Your task to perform on an android device: toggle improve location accuracy Image 0: 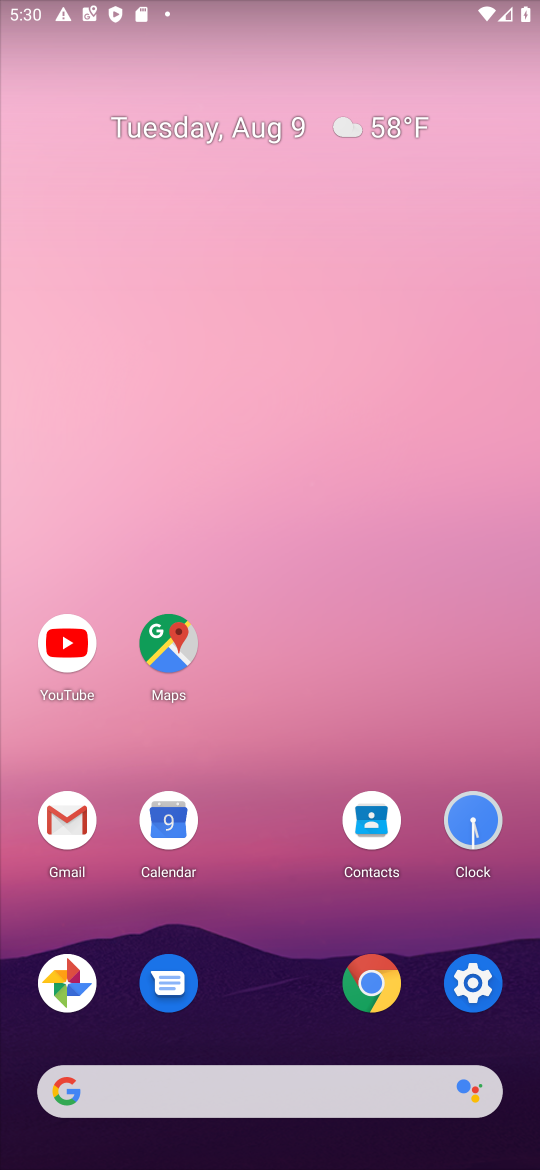
Step 0: click (464, 986)
Your task to perform on an android device: toggle improve location accuracy Image 1: 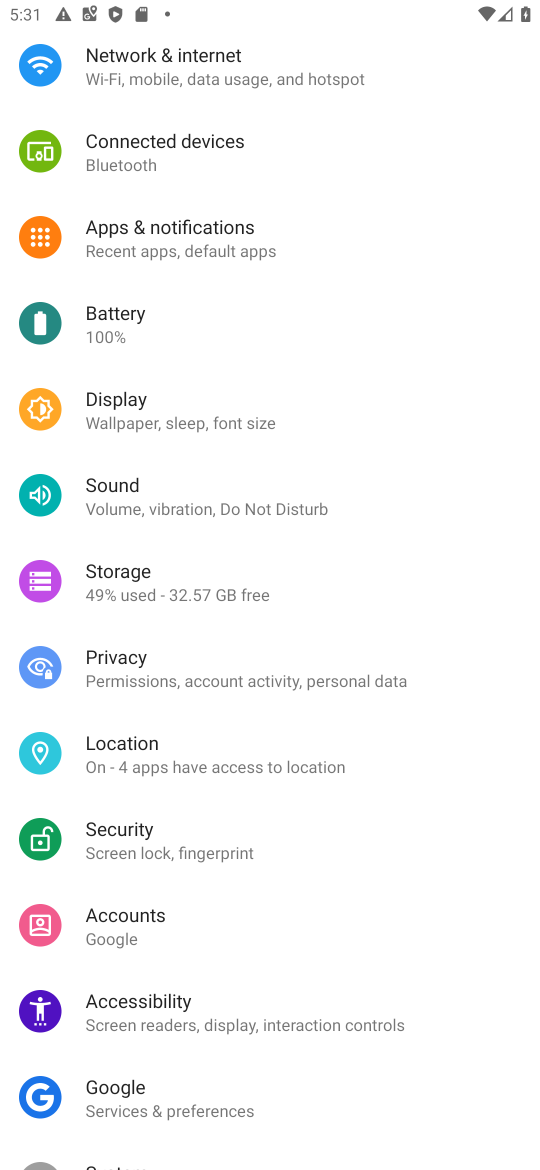
Step 1: click (123, 732)
Your task to perform on an android device: toggle improve location accuracy Image 2: 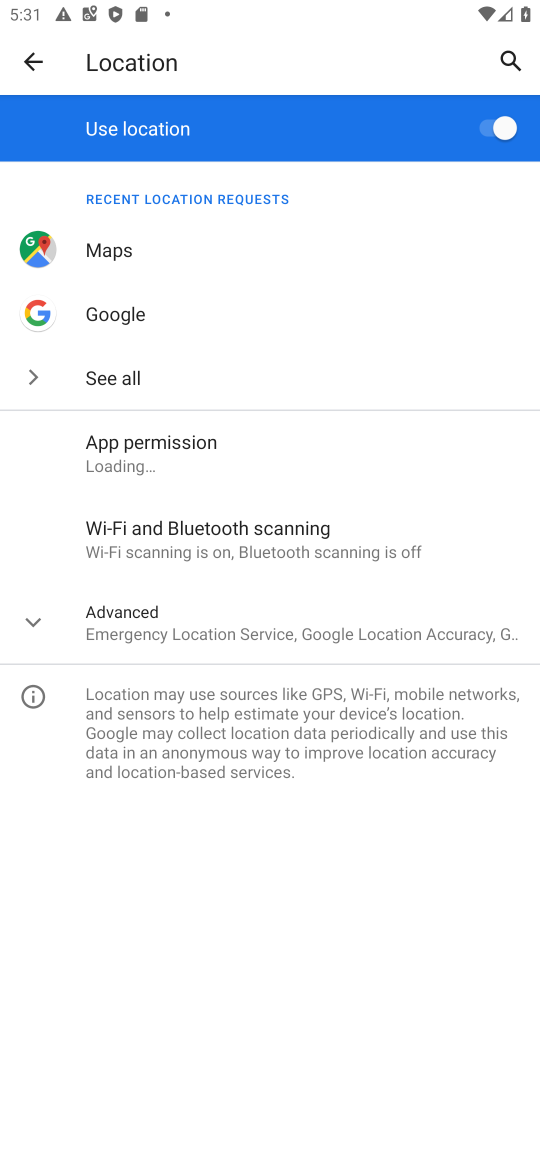
Step 2: click (53, 604)
Your task to perform on an android device: toggle improve location accuracy Image 3: 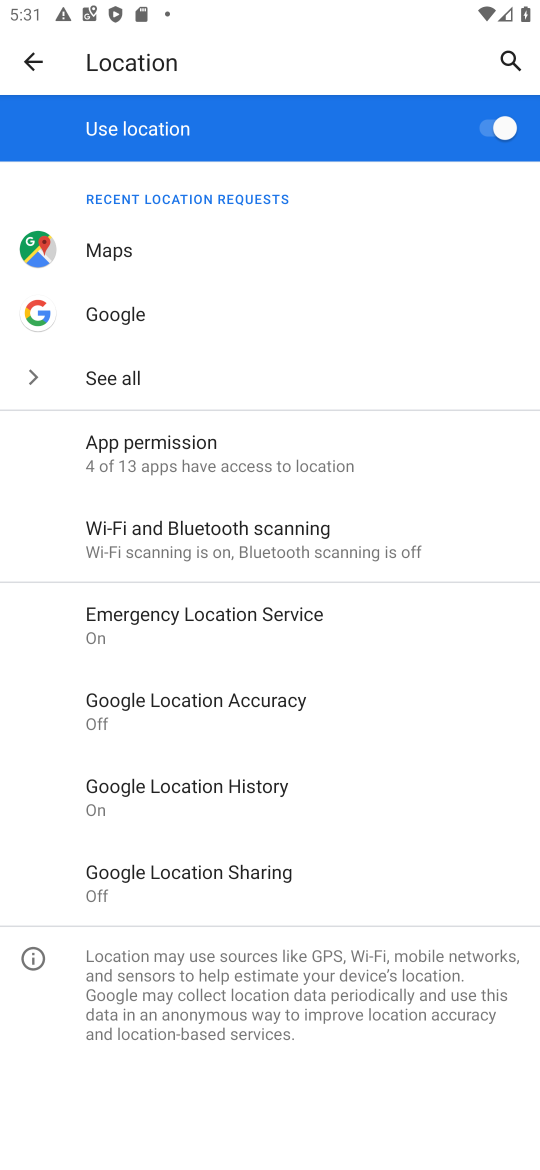
Step 3: click (204, 691)
Your task to perform on an android device: toggle improve location accuracy Image 4: 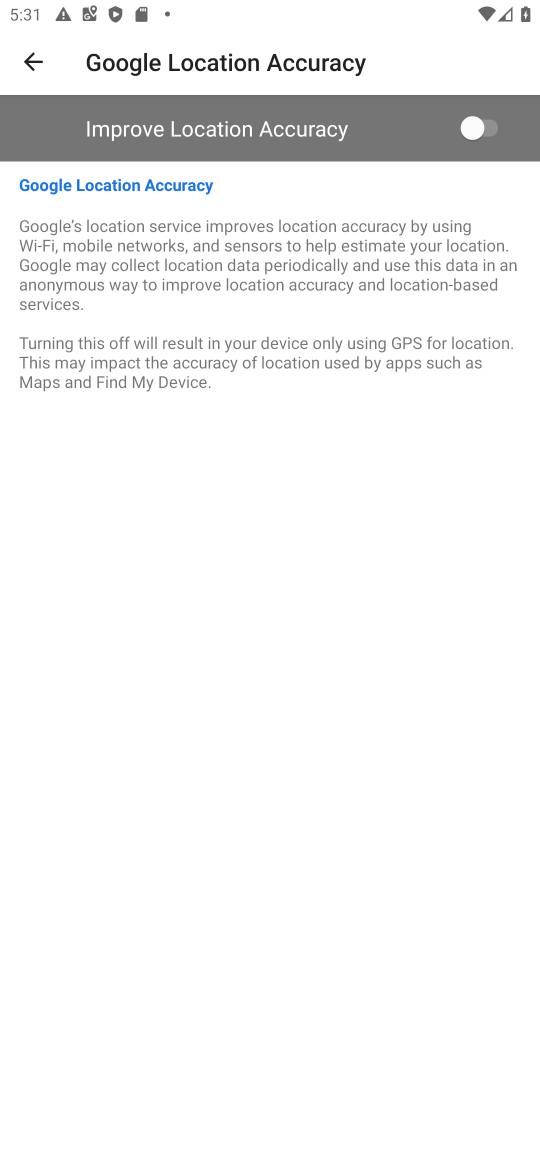
Step 4: click (467, 126)
Your task to perform on an android device: toggle improve location accuracy Image 5: 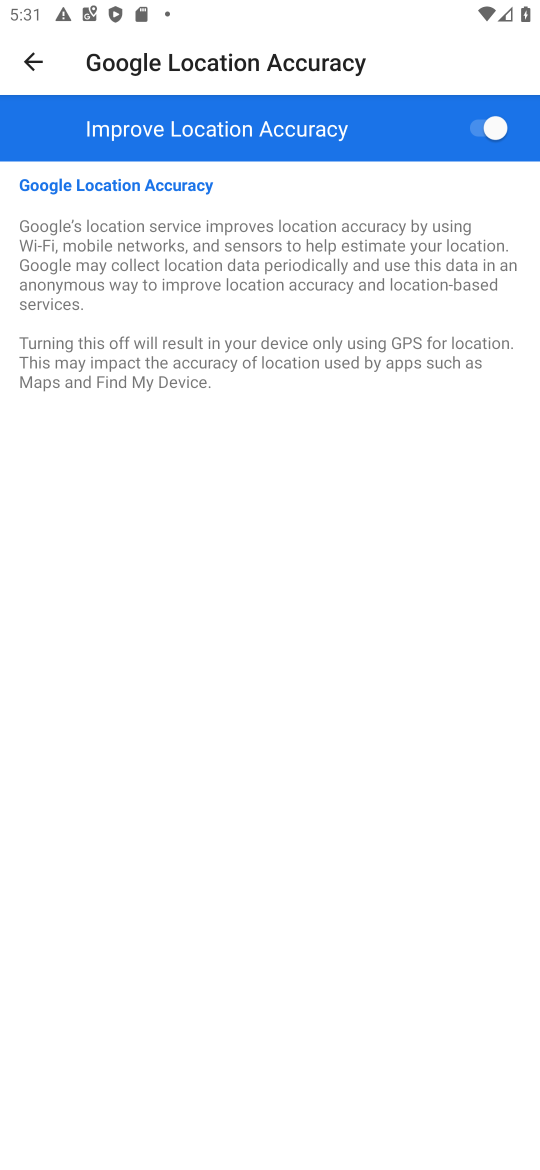
Step 5: task complete